Your task to perform on an android device: Open Youtube and go to "Your channel" Image 0: 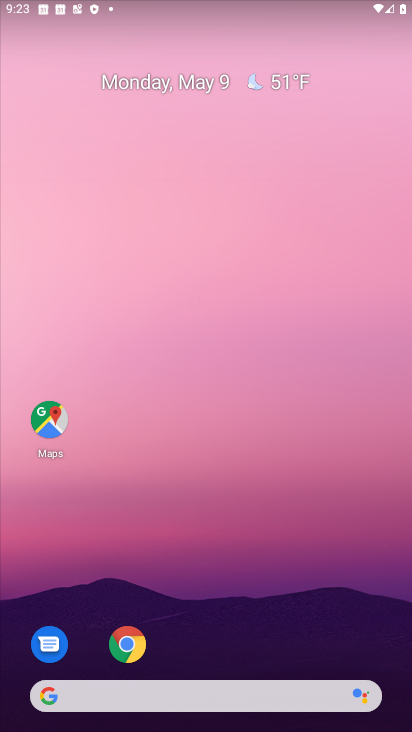
Step 0: drag from (203, 659) to (139, 80)
Your task to perform on an android device: Open Youtube and go to "Your channel" Image 1: 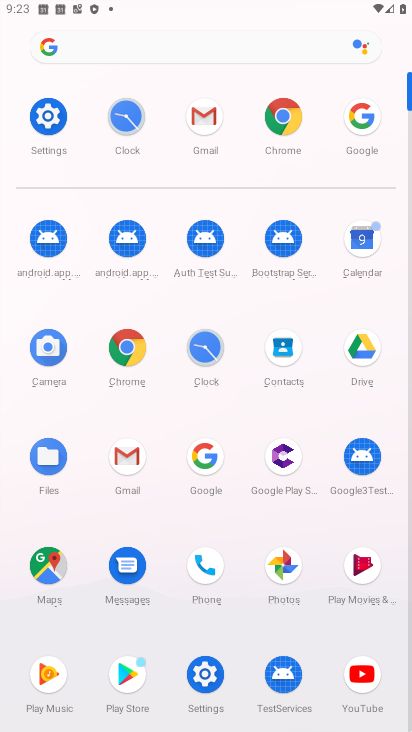
Step 1: click (351, 667)
Your task to perform on an android device: Open Youtube and go to "Your channel" Image 2: 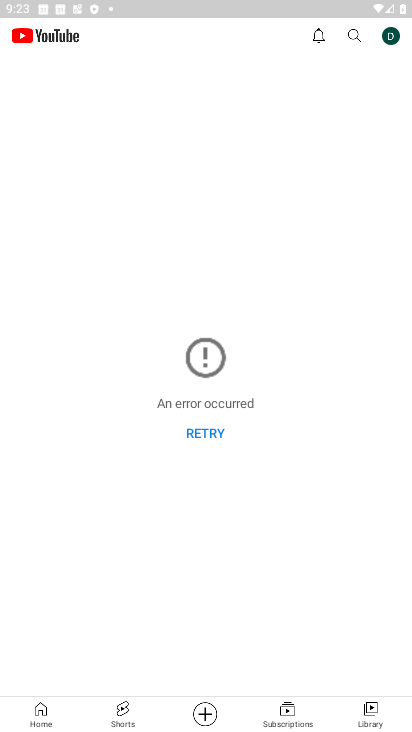
Step 2: click (221, 430)
Your task to perform on an android device: Open Youtube and go to "Your channel" Image 3: 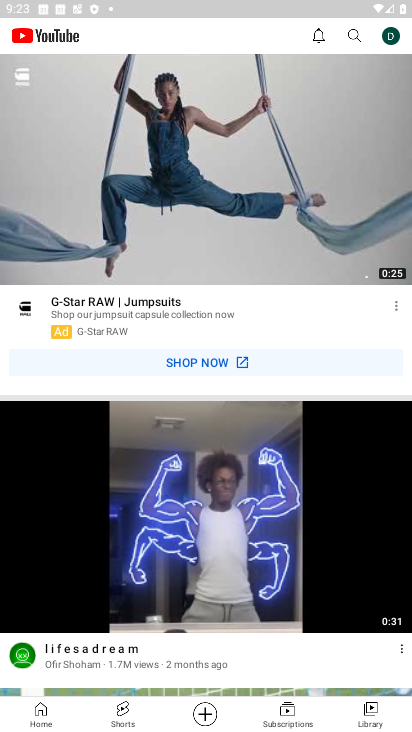
Step 3: click (381, 724)
Your task to perform on an android device: Open Youtube and go to "Your channel" Image 4: 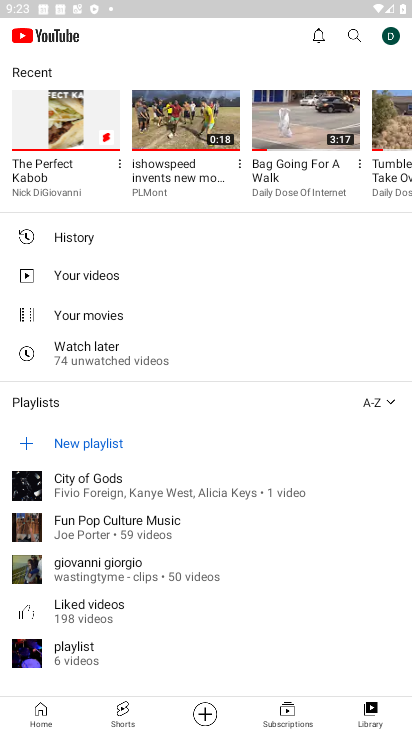
Step 4: drag from (151, 566) to (124, 385)
Your task to perform on an android device: Open Youtube and go to "Your channel" Image 5: 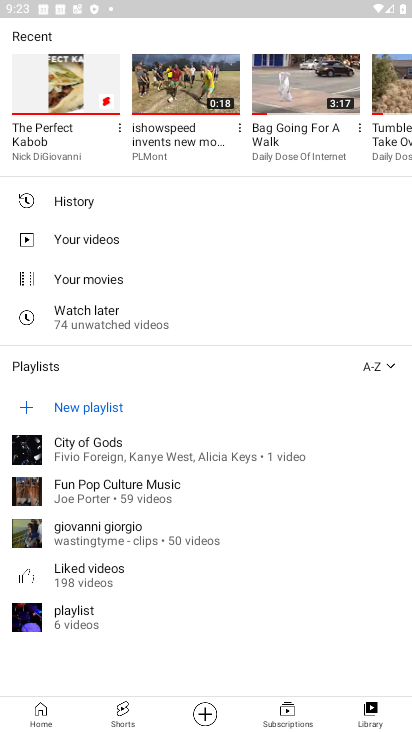
Step 5: click (284, 725)
Your task to perform on an android device: Open Youtube and go to "Your channel" Image 6: 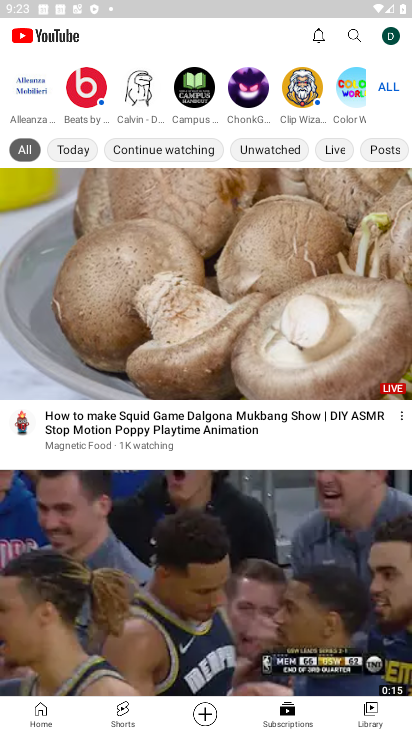
Step 6: click (384, 34)
Your task to perform on an android device: Open Youtube and go to "Your channel" Image 7: 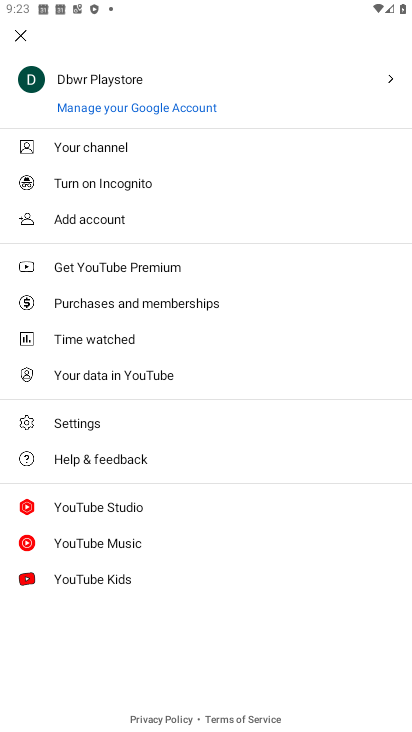
Step 7: click (96, 156)
Your task to perform on an android device: Open Youtube and go to "Your channel" Image 8: 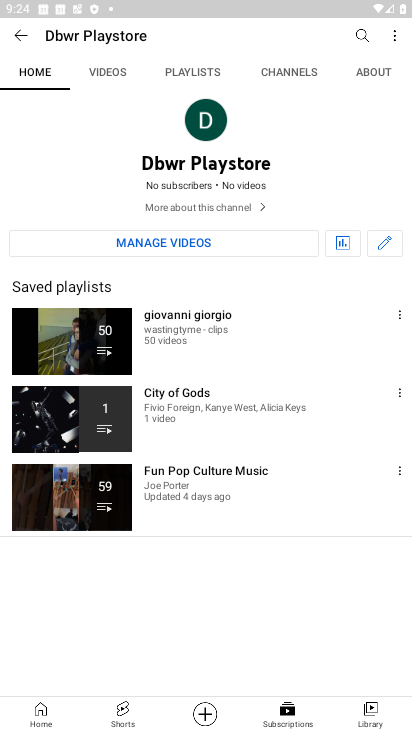
Step 8: task complete